Your task to perform on an android device: Open CNN.com Image 0: 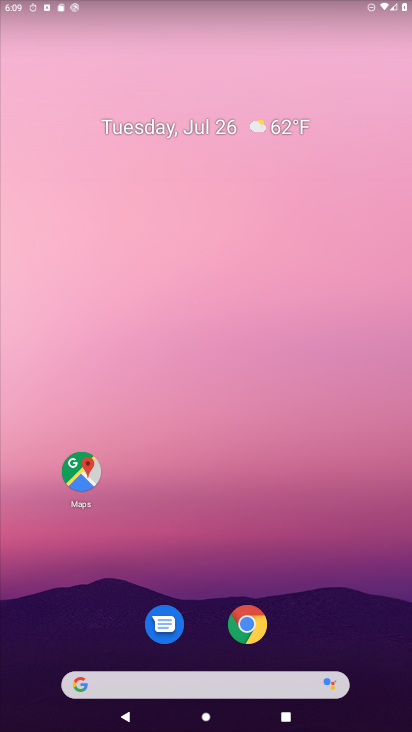
Step 0: drag from (321, 692) to (335, 204)
Your task to perform on an android device: Open CNN.com Image 1: 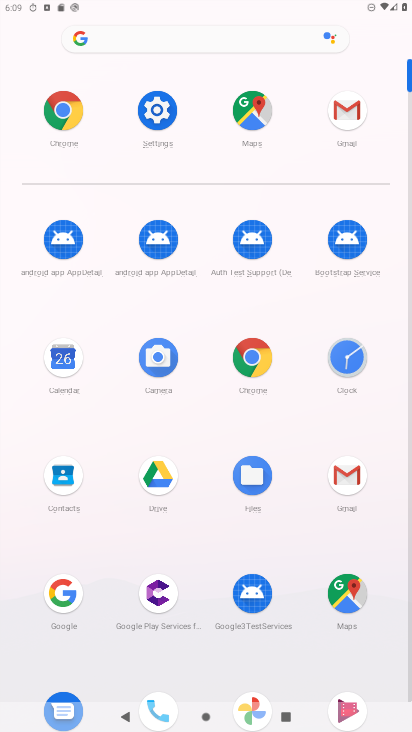
Step 1: click (258, 357)
Your task to perform on an android device: Open CNN.com Image 2: 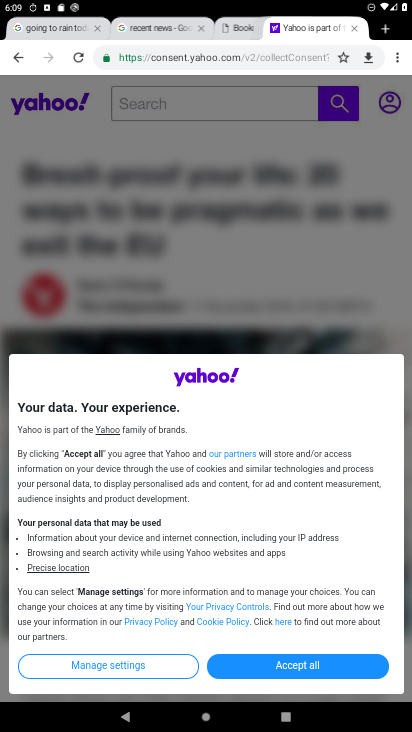
Step 2: click (193, 60)
Your task to perform on an android device: Open CNN.com Image 3: 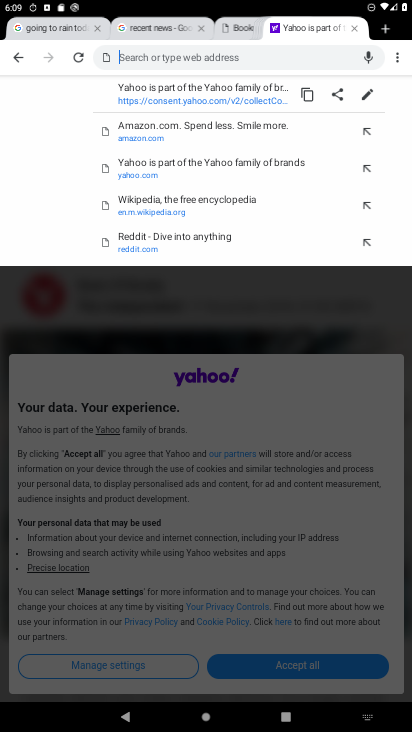
Step 3: type "cnn.com"
Your task to perform on an android device: Open CNN.com Image 4: 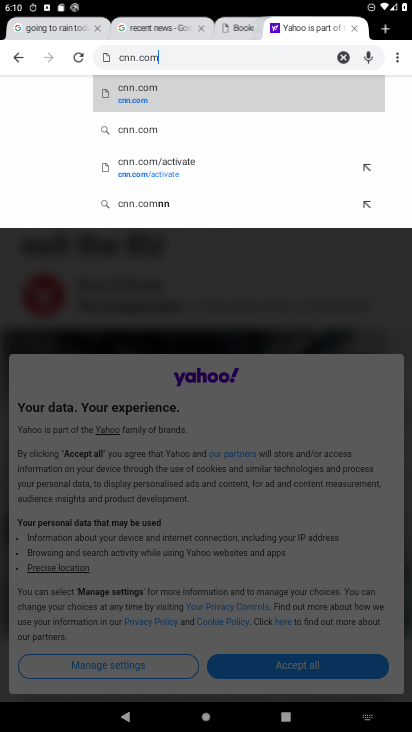
Step 4: click (279, 106)
Your task to perform on an android device: Open CNN.com Image 5: 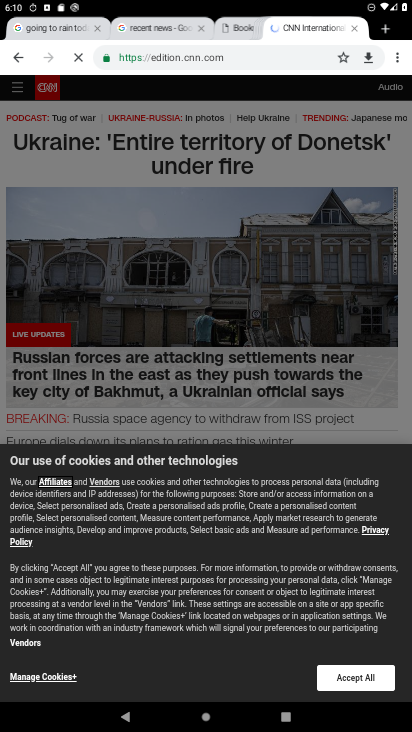
Step 5: task complete